Your task to perform on an android device: add a label to a message in the gmail app Image 0: 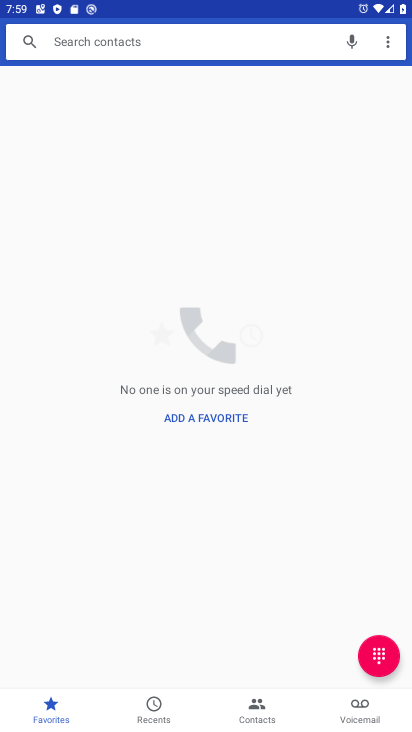
Step 0: click (203, 415)
Your task to perform on an android device: add a label to a message in the gmail app Image 1: 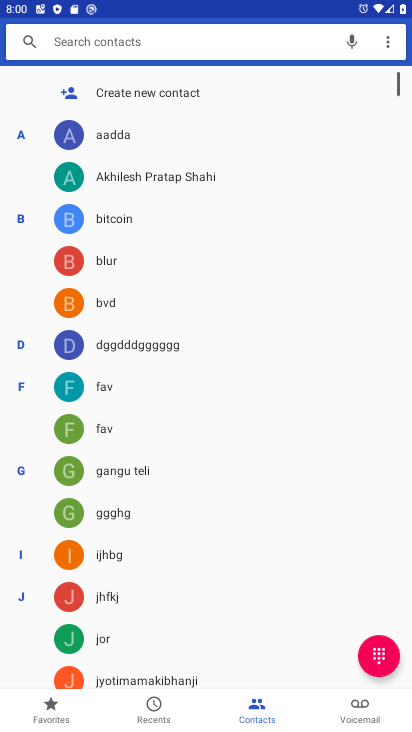
Step 1: press home button
Your task to perform on an android device: add a label to a message in the gmail app Image 2: 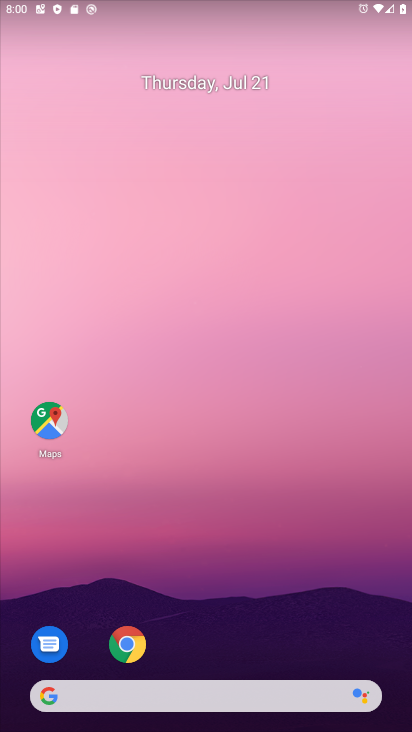
Step 2: drag from (136, 614) to (123, 103)
Your task to perform on an android device: add a label to a message in the gmail app Image 3: 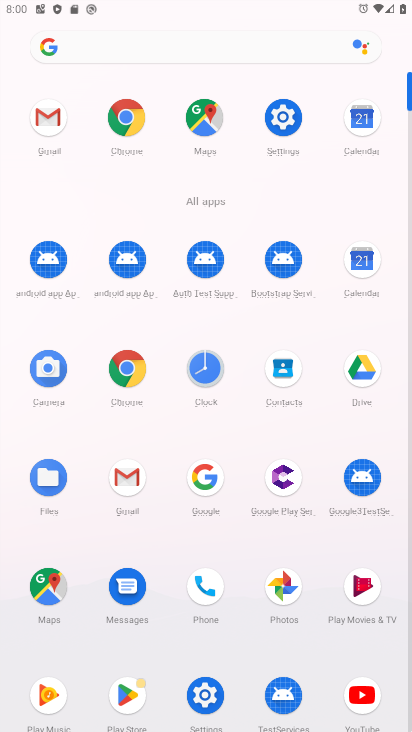
Step 3: click (37, 106)
Your task to perform on an android device: add a label to a message in the gmail app Image 4: 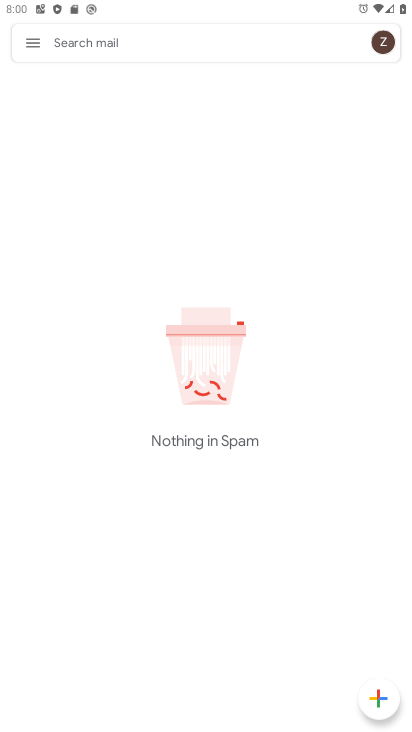
Step 4: click (31, 35)
Your task to perform on an android device: add a label to a message in the gmail app Image 5: 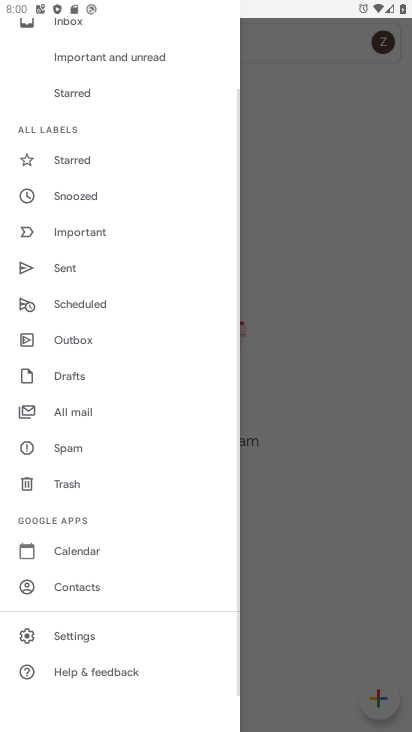
Step 5: click (48, 411)
Your task to perform on an android device: add a label to a message in the gmail app Image 6: 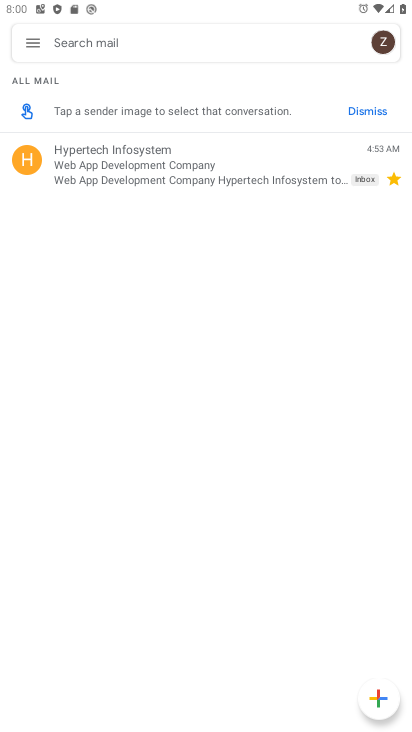
Step 6: click (85, 154)
Your task to perform on an android device: add a label to a message in the gmail app Image 7: 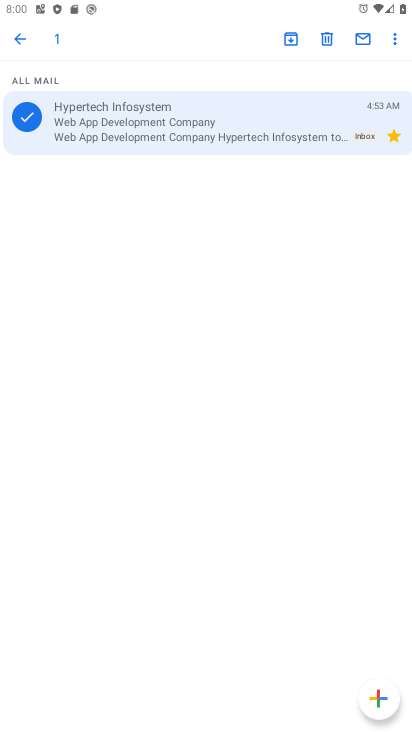
Step 7: click (391, 38)
Your task to perform on an android device: add a label to a message in the gmail app Image 8: 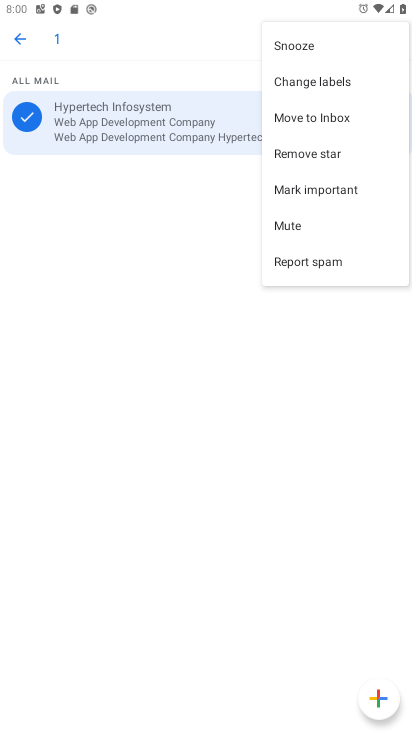
Step 8: click (313, 88)
Your task to perform on an android device: add a label to a message in the gmail app Image 9: 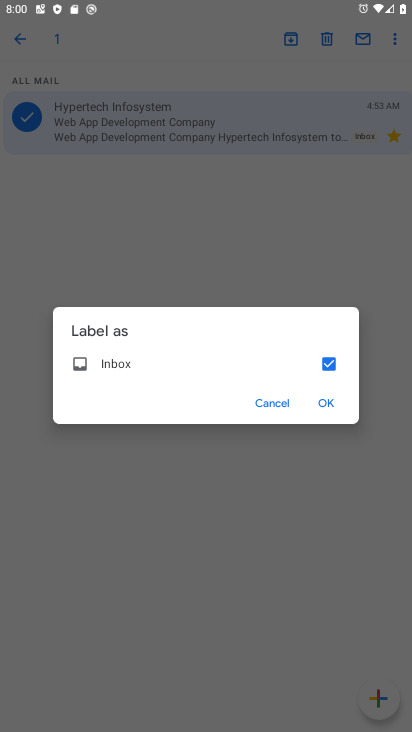
Step 9: click (328, 409)
Your task to perform on an android device: add a label to a message in the gmail app Image 10: 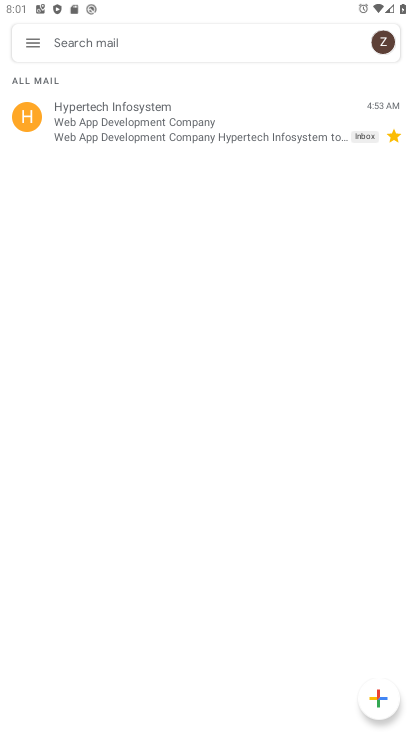
Step 10: task complete